Your task to perform on an android device: Open privacy settings Image 0: 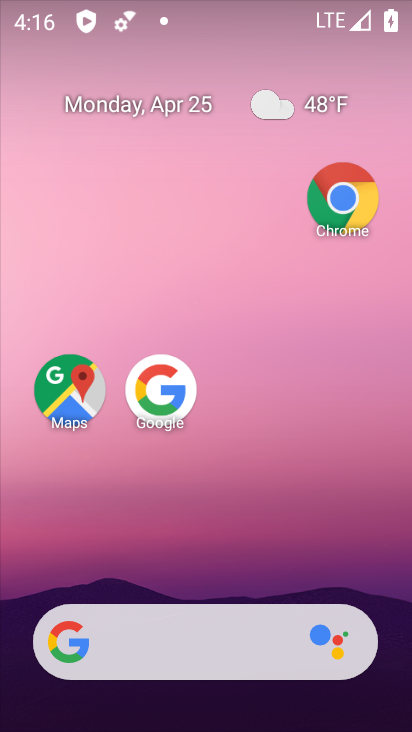
Step 0: drag from (205, 632) to (274, 254)
Your task to perform on an android device: Open privacy settings Image 1: 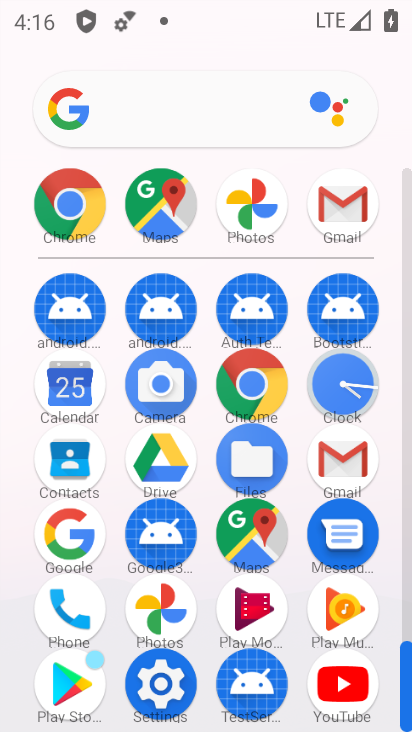
Step 1: click (160, 680)
Your task to perform on an android device: Open privacy settings Image 2: 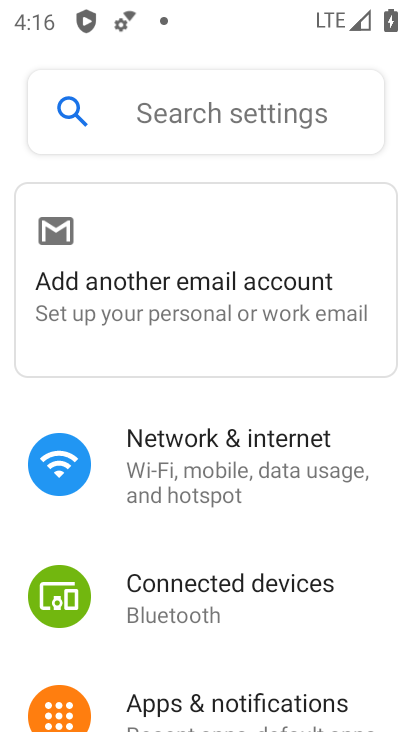
Step 2: drag from (217, 652) to (327, 245)
Your task to perform on an android device: Open privacy settings Image 3: 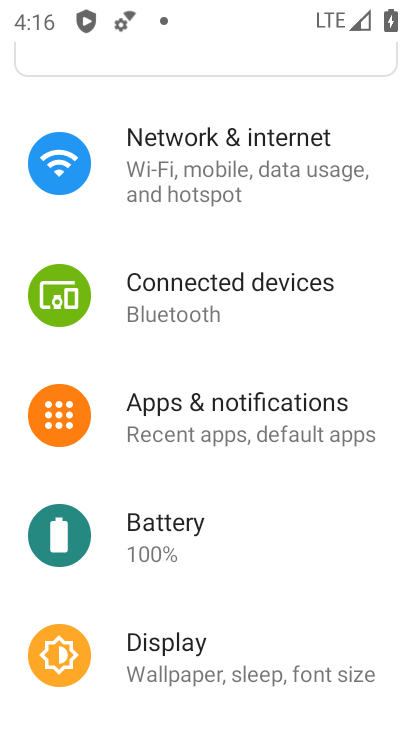
Step 3: drag from (212, 594) to (330, 165)
Your task to perform on an android device: Open privacy settings Image 4: 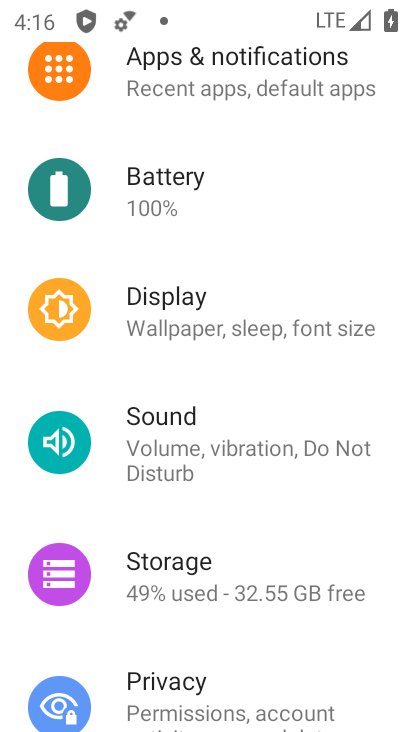
Step 4: click (186, 686)
Your task to perform on an android device: Open privacy settings Image 5: 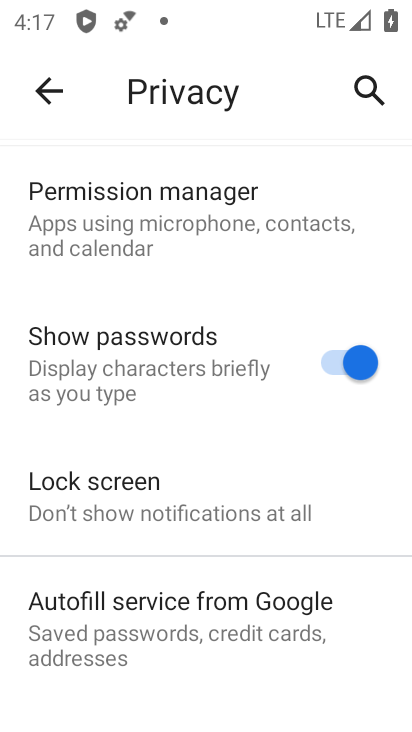
Step 5: task complete